Your task to perform on an android device: Turn off the flashlight Image 0: 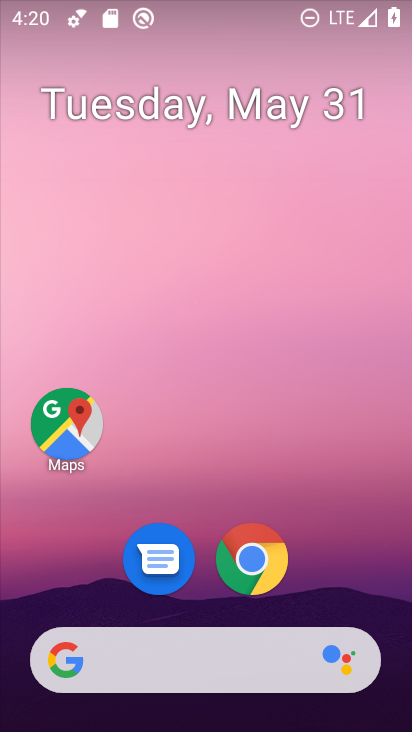
Step 0: drag from (186, 714) to (136, 164)
Your task to perform on an android device: Turn off the flashlight Image 1: 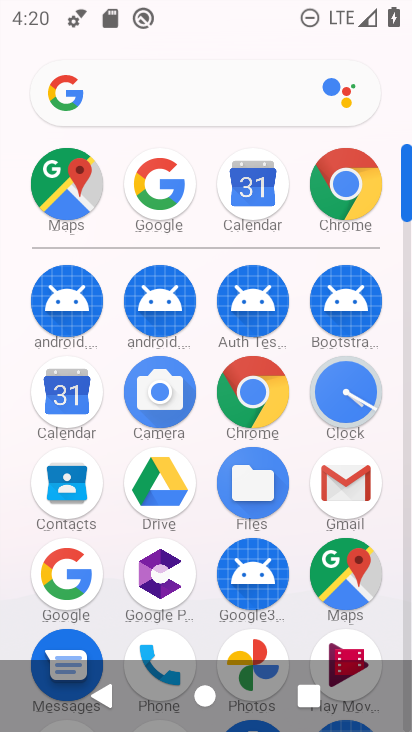
Step 1: drag from (206, 616) to (180, 243)
Your task to perform on an android device: Turn off the flashlight Image 2: 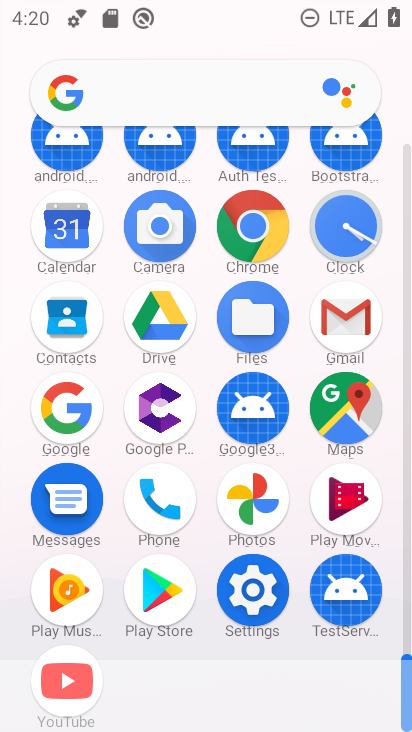
Step 2: click (245, 602)
Your task to perform on an android device: Turn off the flashlight Image 3: 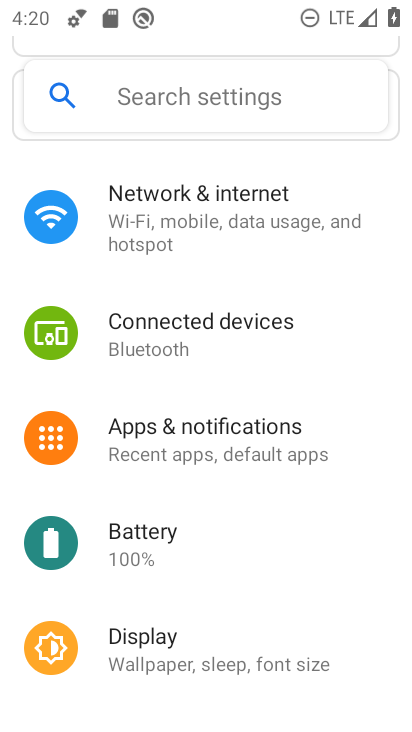
Step 3: task complete